Your task to perform on an android device: What's the weather going to be tomorrow? Image 0: 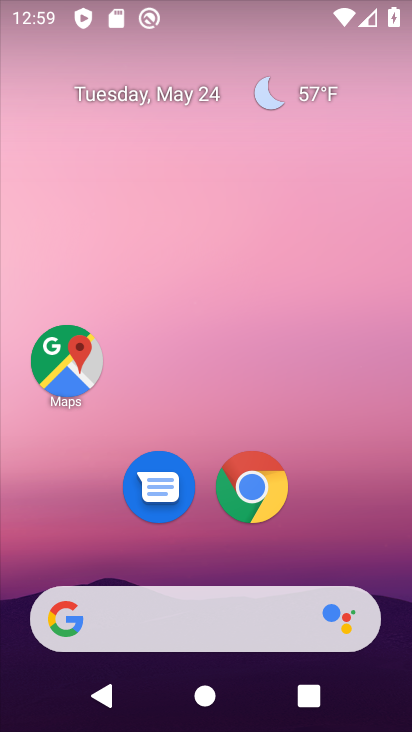
Step 0: click (271, 96)
Your task to perform on an android device: What's the weather going to be tomorrow? Image 1: 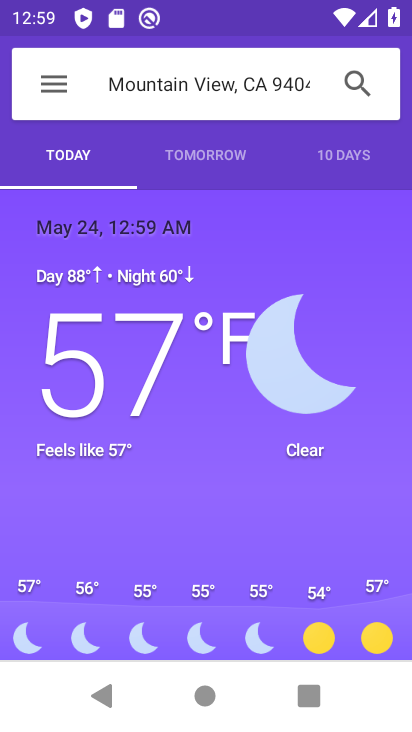
Step 1: click (217, 153)
Your task to perform on an android device: What's the weather going to be tomorrow? Image 2: 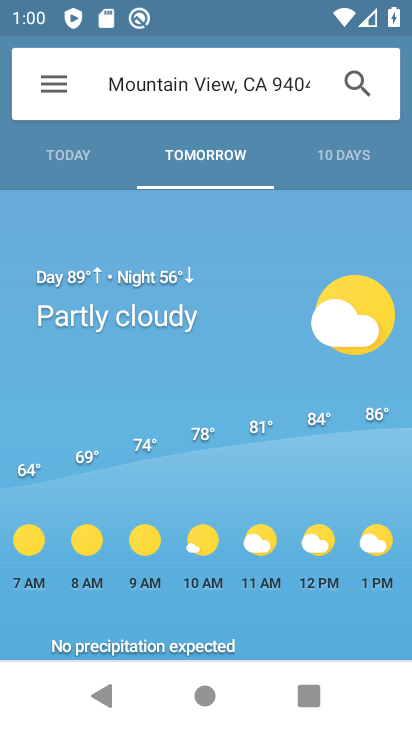
Step 2: task complete